Your task to perform on an android device: open chrome and create a bookmark for the current page Image 0: 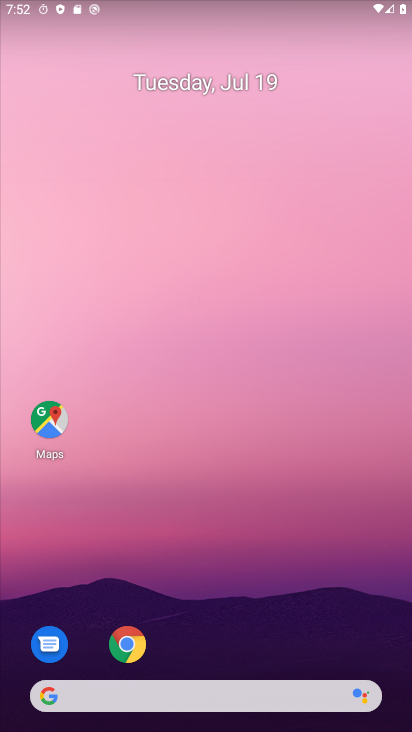
Step 0: click (113, 644)
Your task to perform on an android device: open chrome and create a bookmark for the current page Image 1: 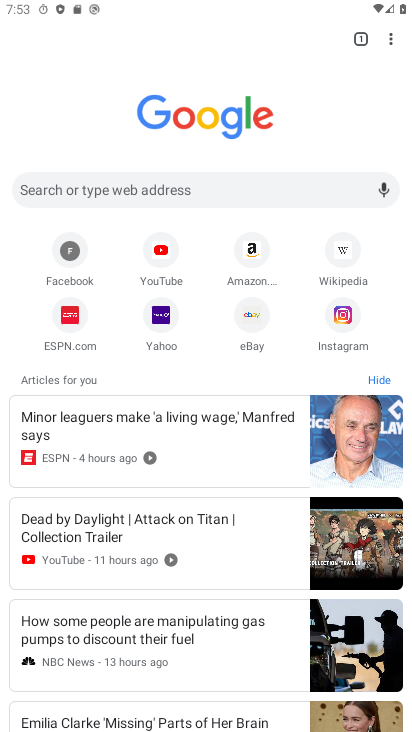
Step 1: click (392, 37)
Your task to perform on an android device: open chrome and create a bookmark for the current page Image 2: 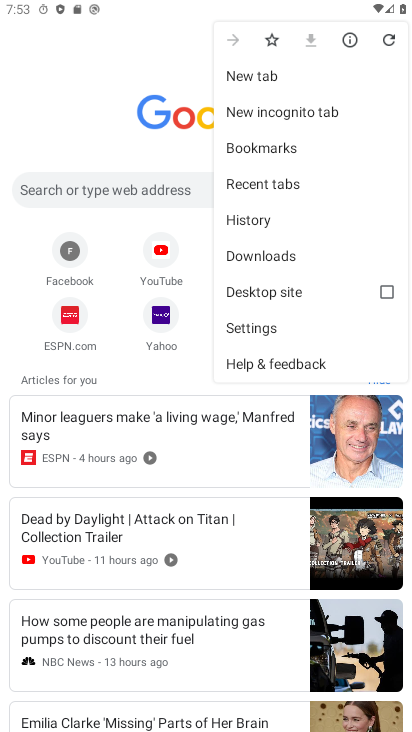
Step 2: click (272, 40)
Your task to perform on an android device: open chrome and create a bookmark for the current page Image 3: 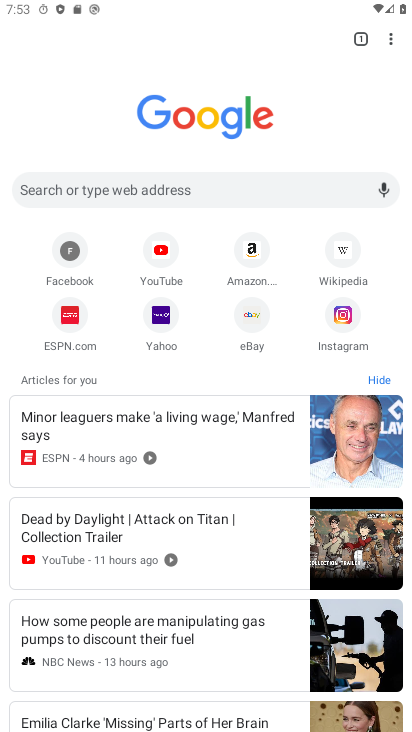
Step 3: task complete